Your task to perform on an android device: Clear the shopping cart on newegg. Add alienware area 51 to the cart on newegg Image 0: 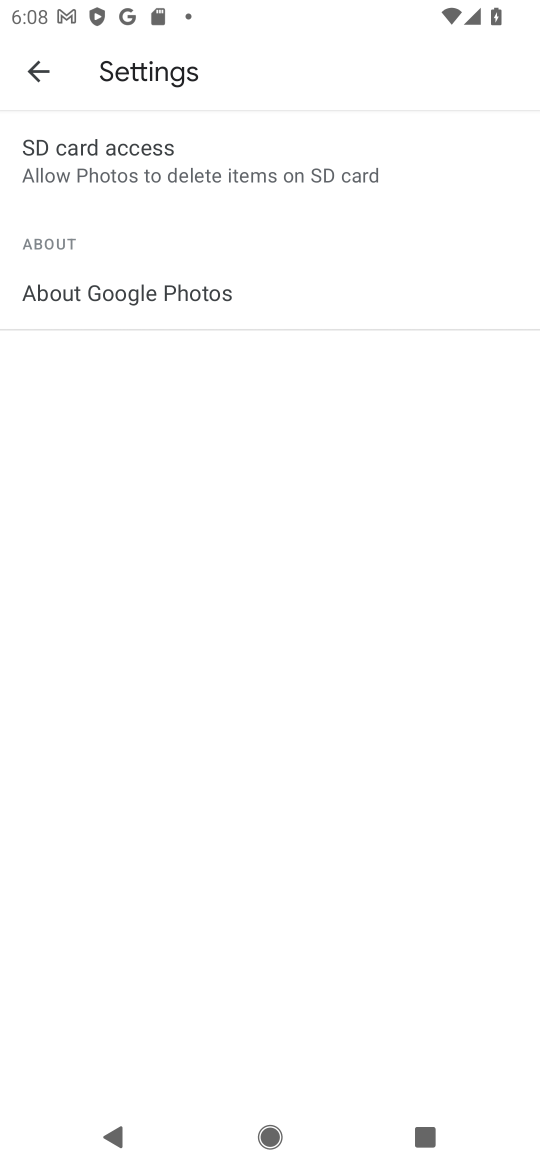
Step 0: press home button
Your task to perform on an android device: Clear the shopping cart on newegg. Add alienware area 51 to the cart on newegg Image 1: 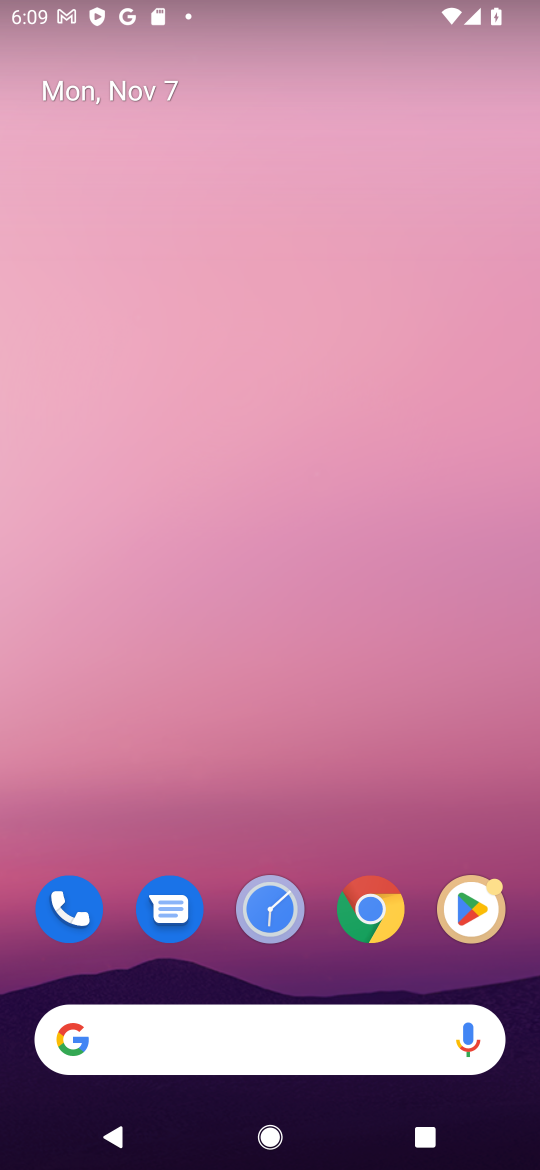
Step 1: click (366, 918)
Your task to perform on an android device: Clear the shopping cart on newegg. Add alienware area 51 to the cart on newegg Image 2: 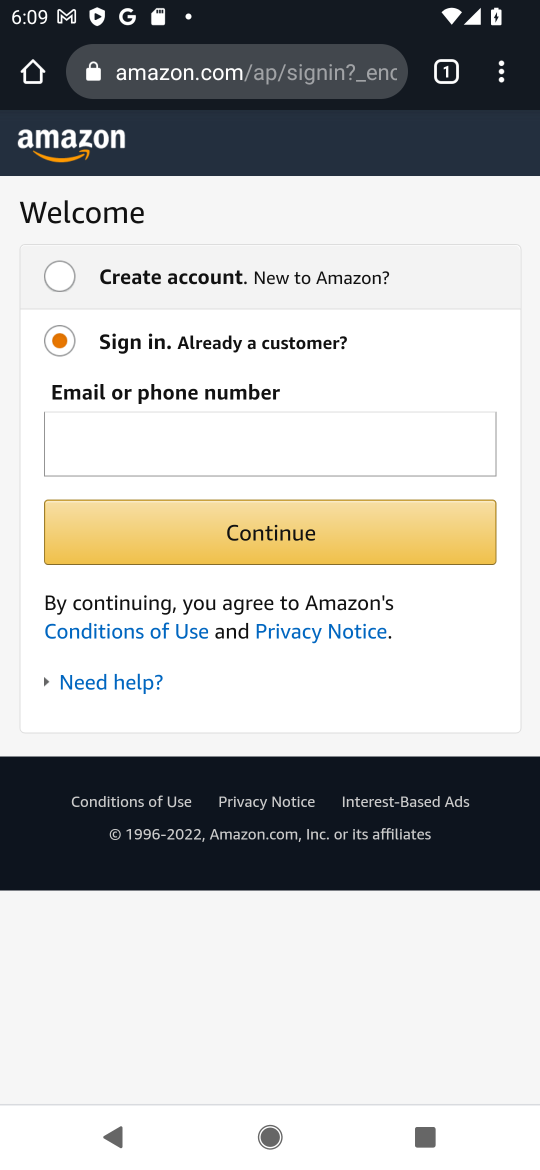
Step 2: click (459, 79)
Your task to perform on an android device: Clear the shopping cart on newegg. Add alienware area 51 to the cart on newegg Image 3: 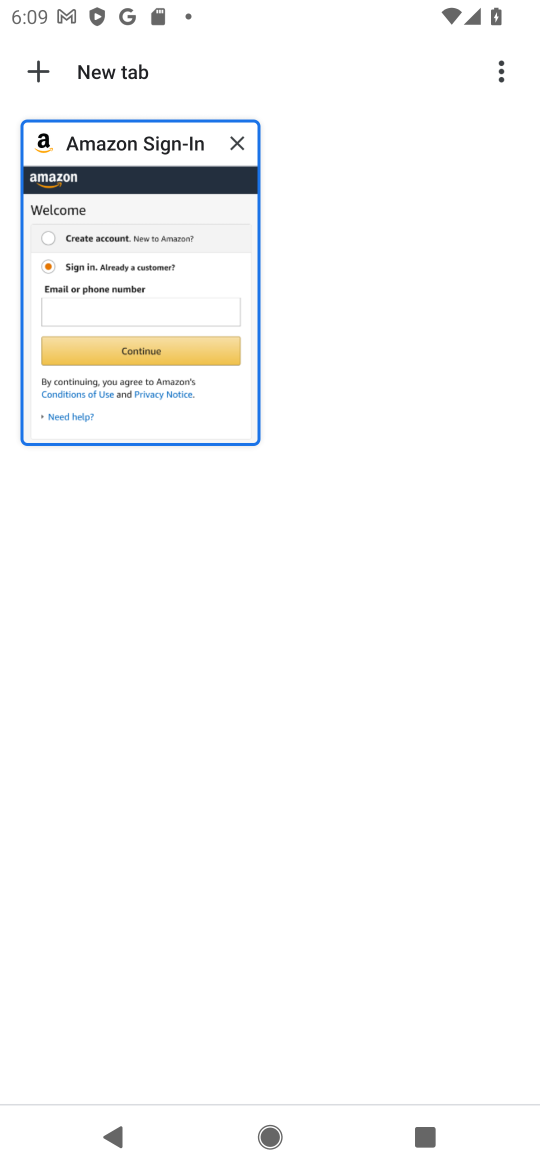
Step 3: click (40, 68)
Your task to perform on an android device: Clear the shopping cart on newegg. Add alienware area 51 to the cart on newegg Image 4: 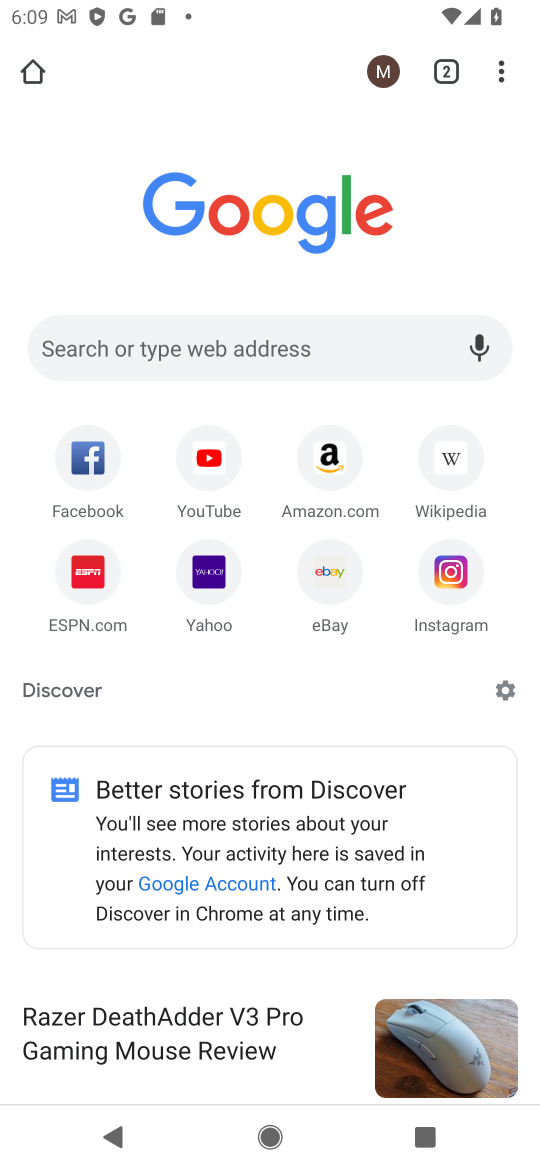
Step 4: click (133, 346)
Your task to perform on an android device: Clear the shopping cart on newegg. Add alienware area 51 to the cart on newegg Image 5: 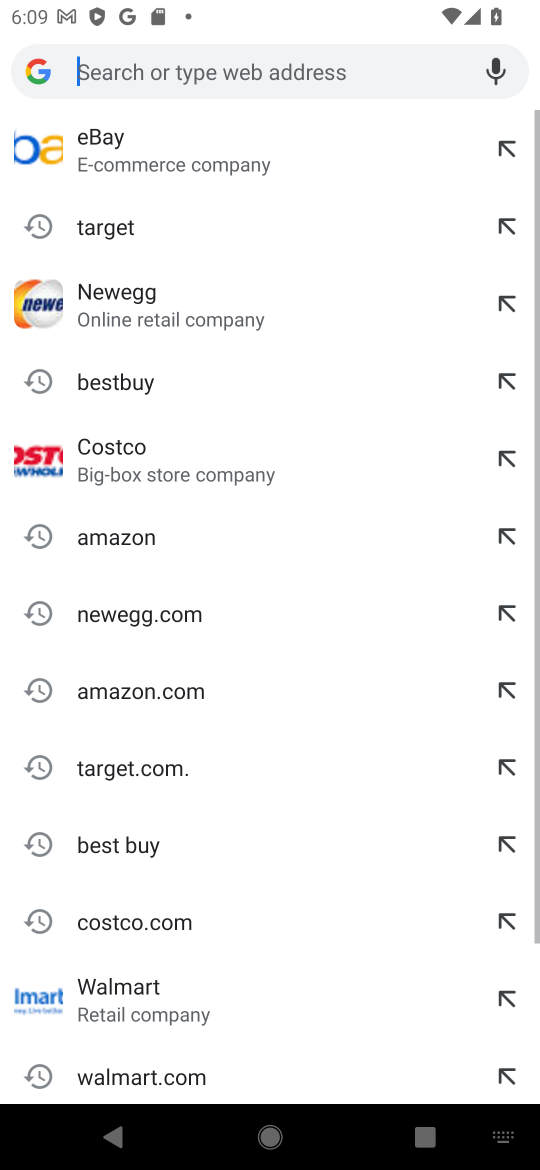
Step 5: type "newegg"
Your task to perform on an android device: Clear the shopping cart on newegg. Add alienware area 51 to the cart on newegg Image 6: 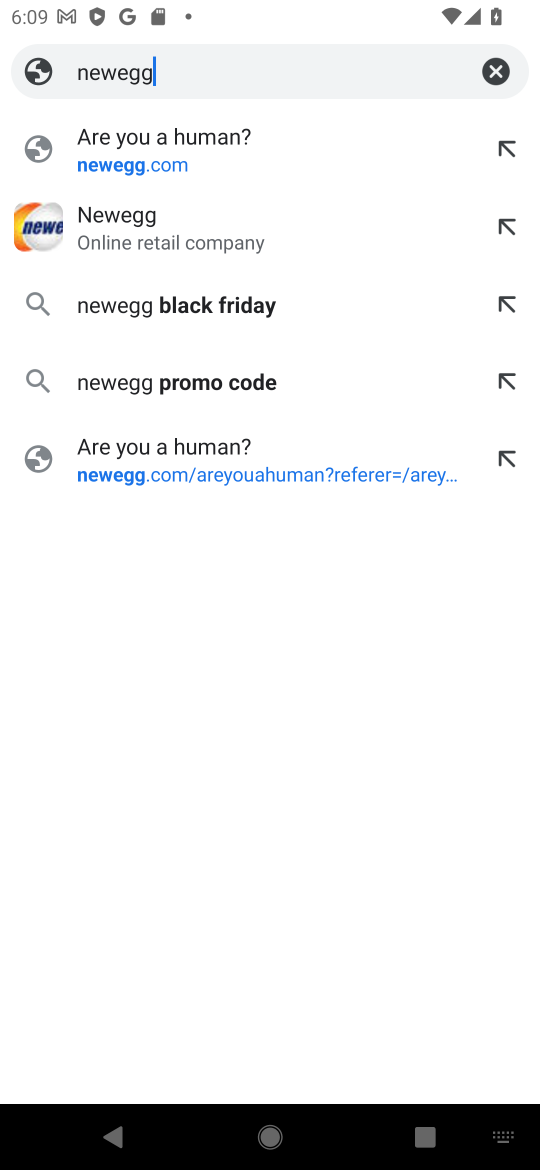
Step 6: click (134, 243)
Your task to perform on an android device: Clear the shopping cart on newegg. Add alienware area 51 to the cart on newegg Image 7: 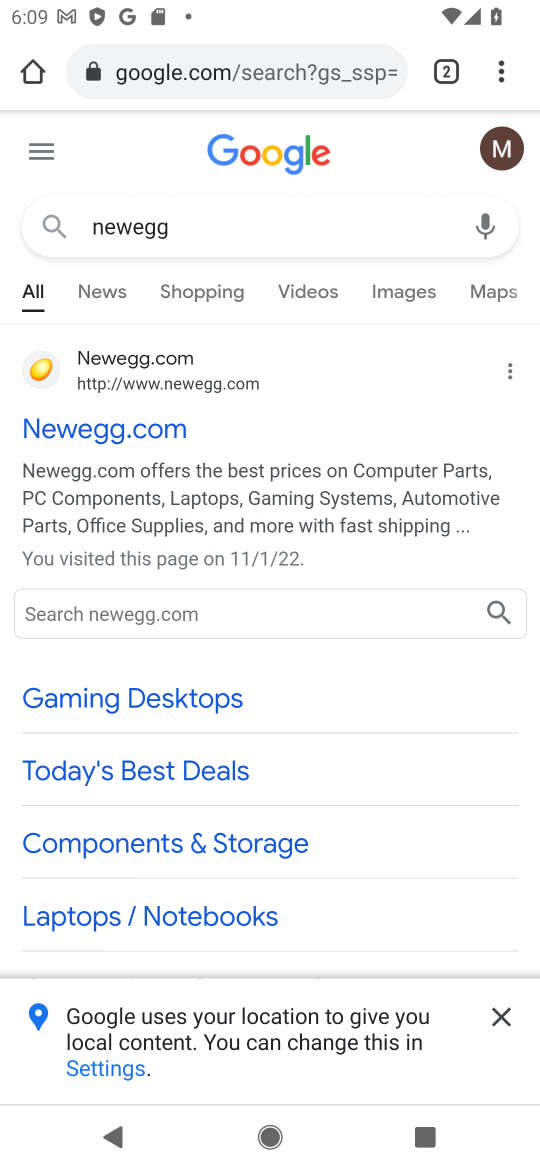
Step 7: drag from (360, 829) to (530, 1028)
Your task to perform on an android device: Clear the shopping cart on newegg. Add alienware area 51 to the cart on newegg Image 8: 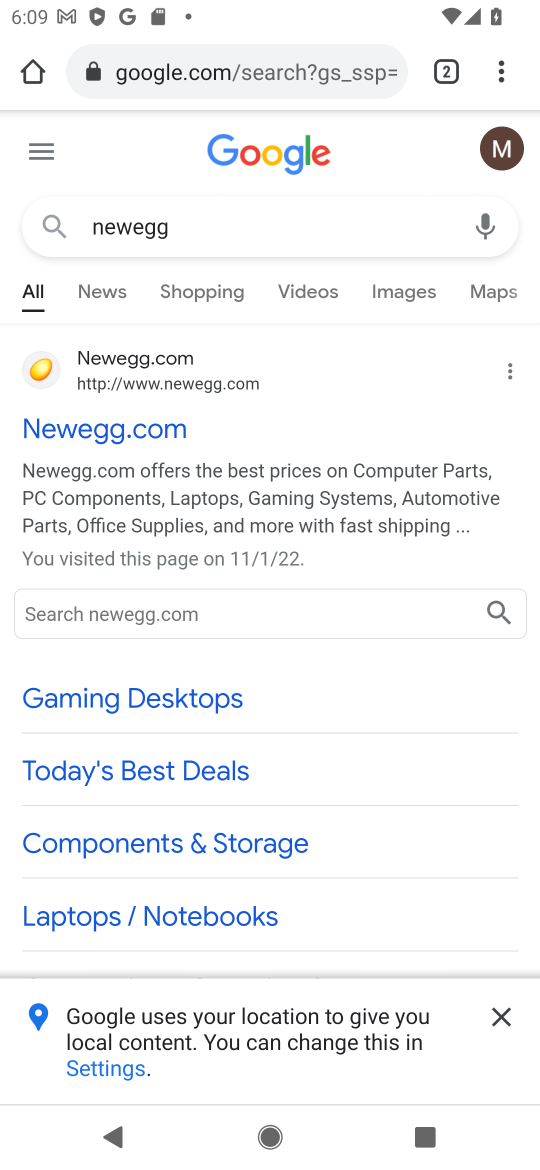
Step 8: click (503, 1017)
Your task to perform on an android device: Clear the shopping cart on newegg. Add alienware area 51 to the cart on newegg Image 9: 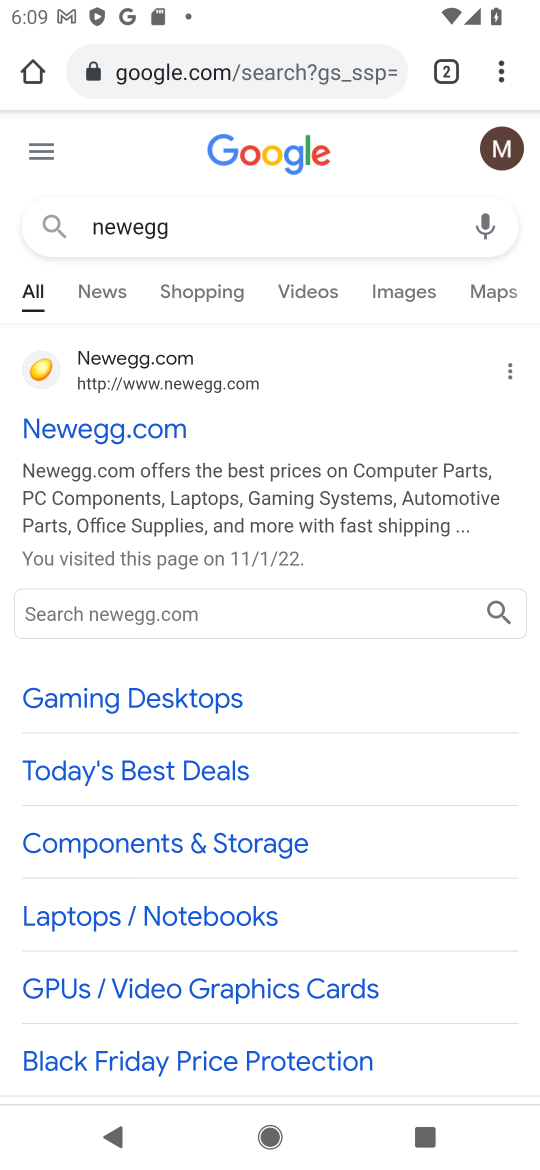
Step 9: drag from (404, 404) to (472, 19)
Your task to perform on an android device: Clear the shopping cart on newegg. Add alienware area 51 to the cart on newegg Image 10: 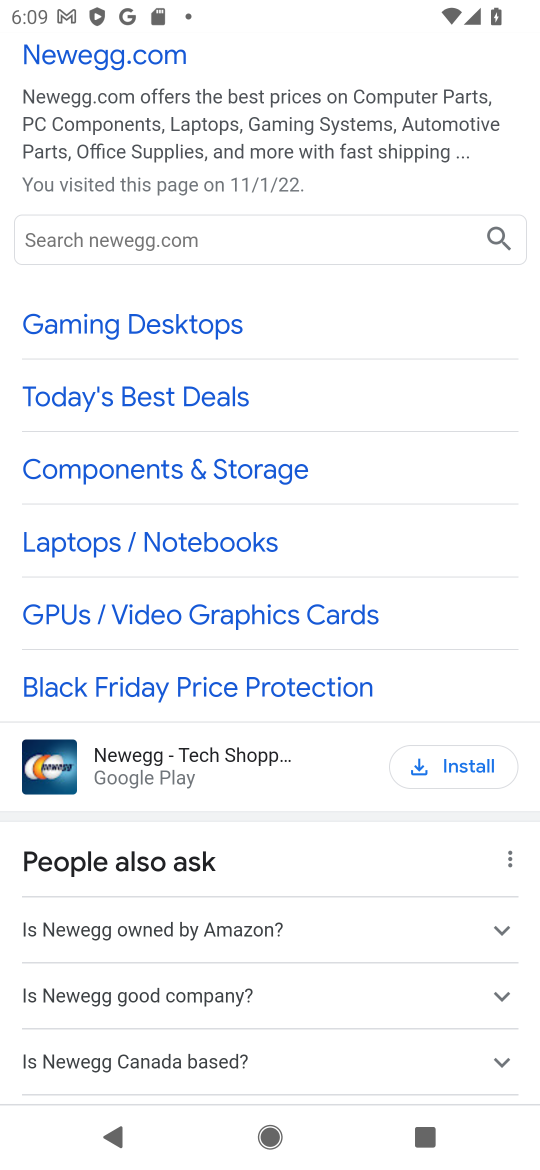
Step 10: click (150, 235)
Your task to perform on an android device: Clear the shopping cart on newegg. Add alienware area 51 to the cart on newegg Image 11: 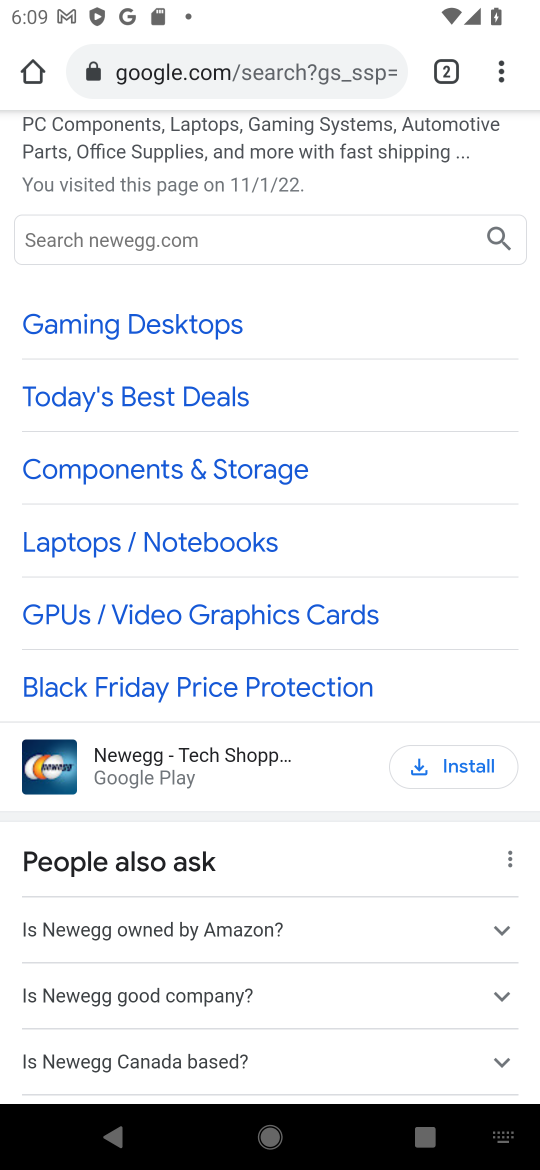
Step 11: type "alienware area 51 "
Your task to perform on an android device: Clear the shopping cart on newegg. Add alienware area 51 to the cart on newegg Image 12: 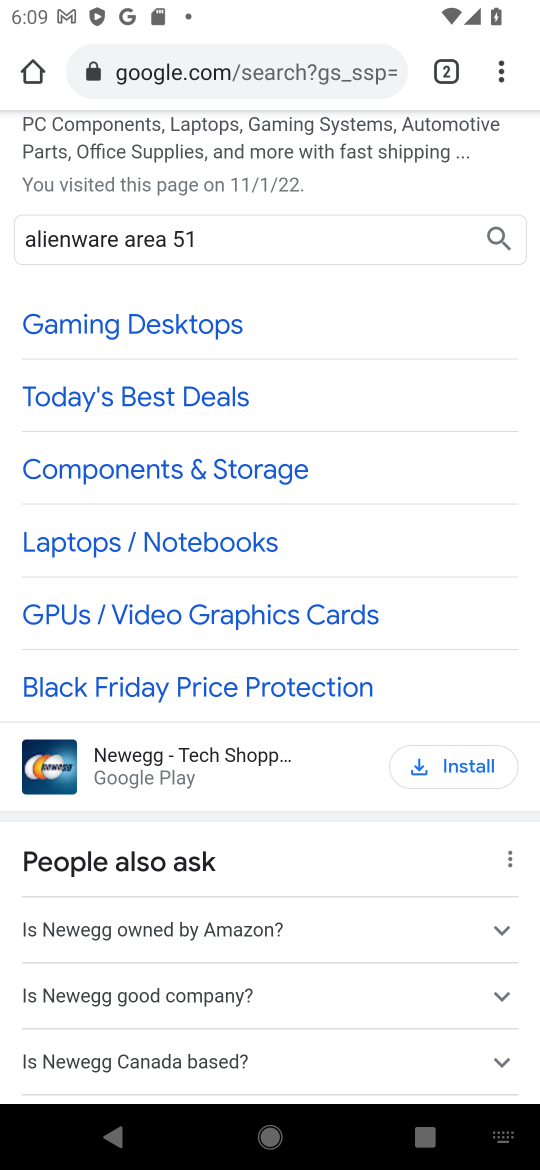
Step 12: click (504, 237)
Your task to perform on an android device: Clear the shopping cart on newegg. Add alienware area 51 to the cart on newegg Image 13: 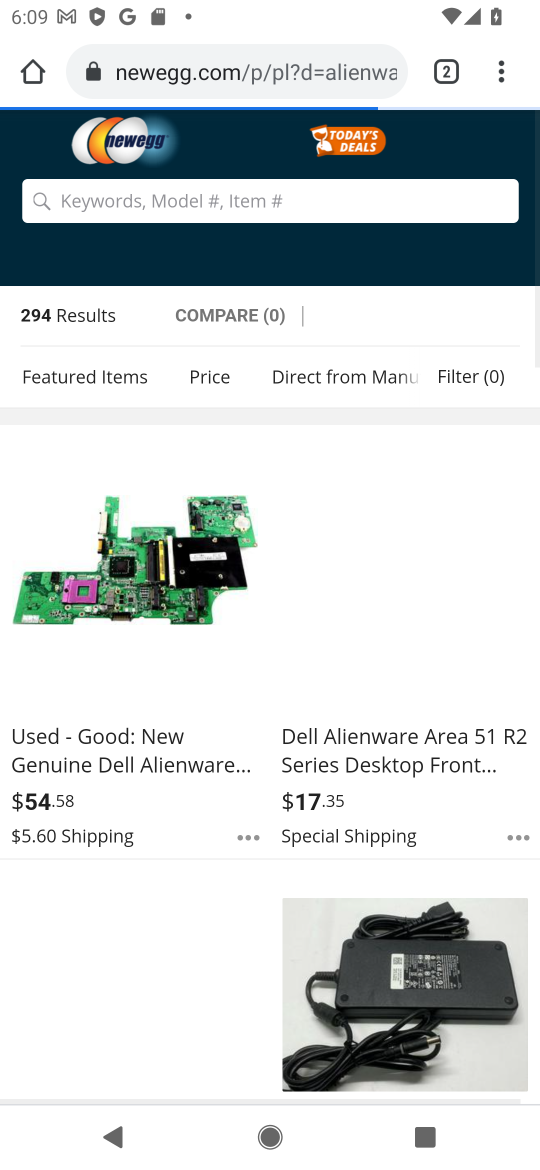
Step 13: click (499, 233)
Your task to perform on an android device: Clear the shopping cart on newegg. Add alienware area 51 to the cart on newegg Image 14: 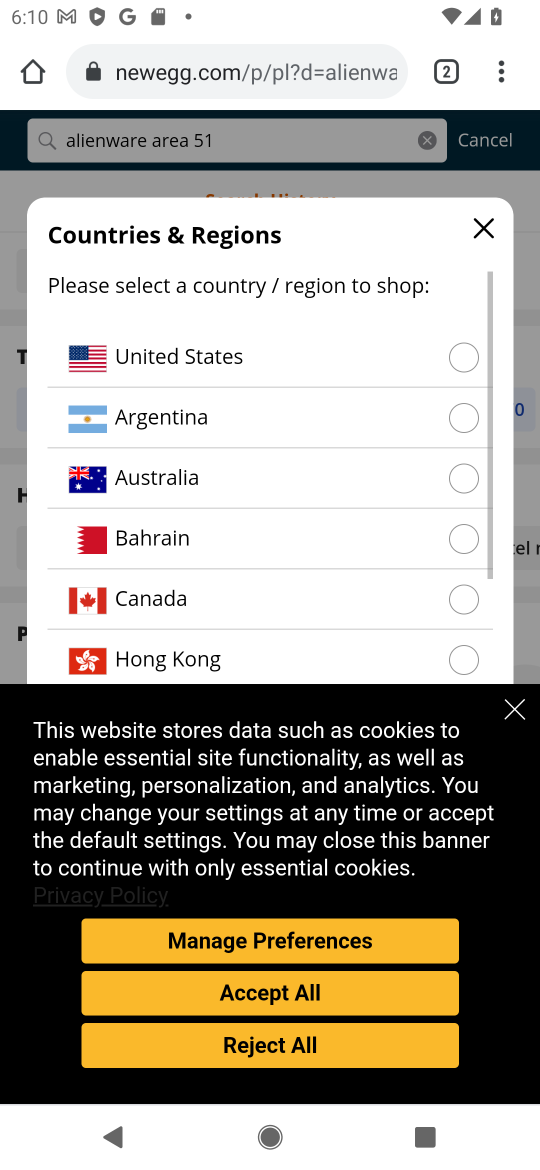
Step 14: click (516, 709)
Your task to perform on an android device: Clear the shopping cart on newegg. Add alienware area 51 to the cart on newegg Image 15: 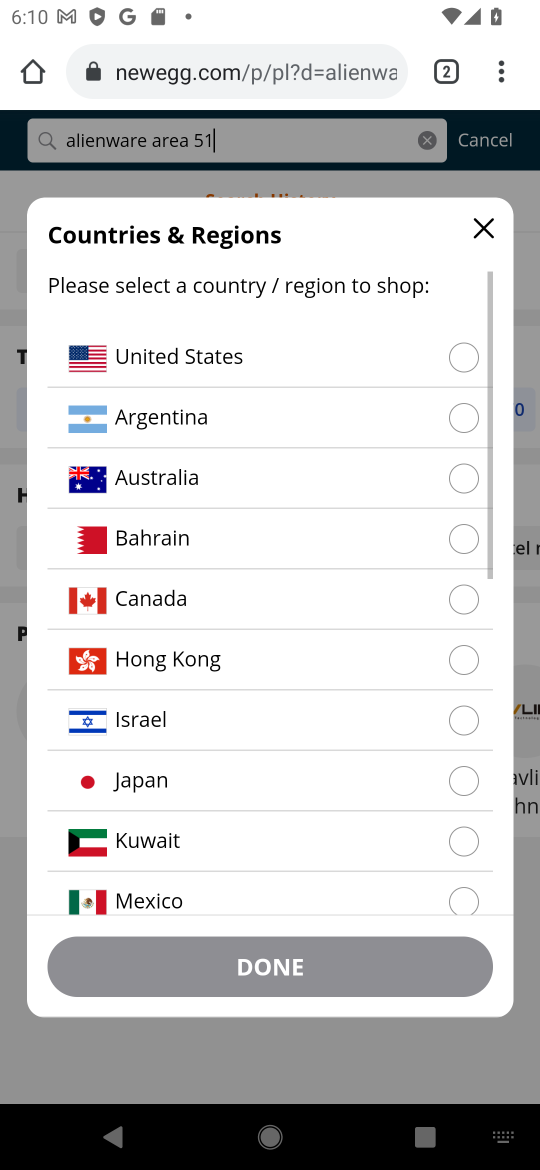
Step 15: click (344, 1163)
Your task to perform on an android device: Clear the shopping cart on newegg. Add alienware area 51 to the cart on newegg Image 16: 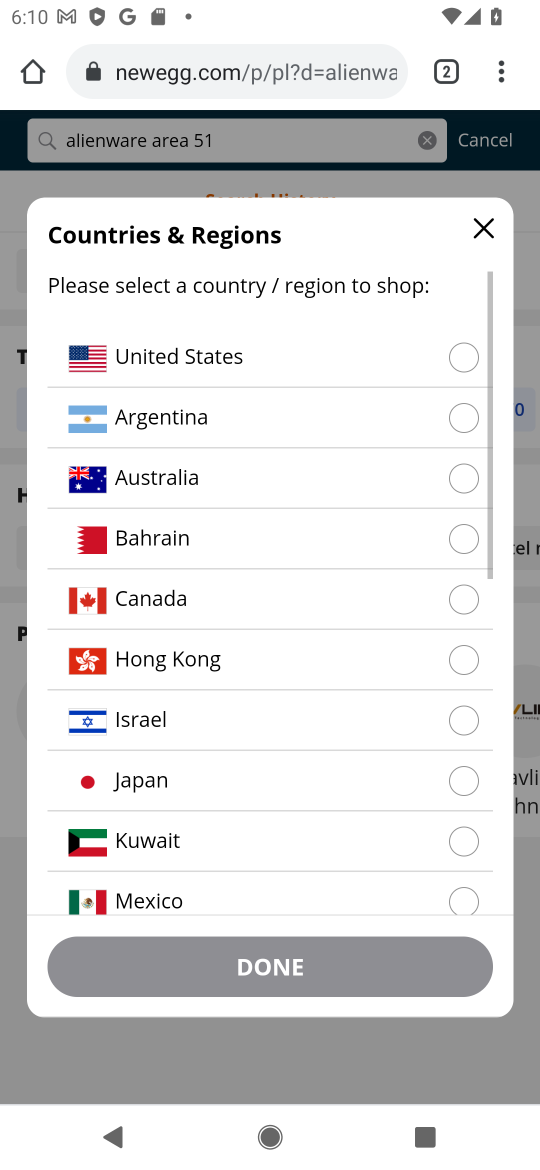
Step 16: click (268, 1052)
Your task to perform on an android device: Clear the shopping cart on newegg. Add alienware area 51 to the cart on newegg Image 17: 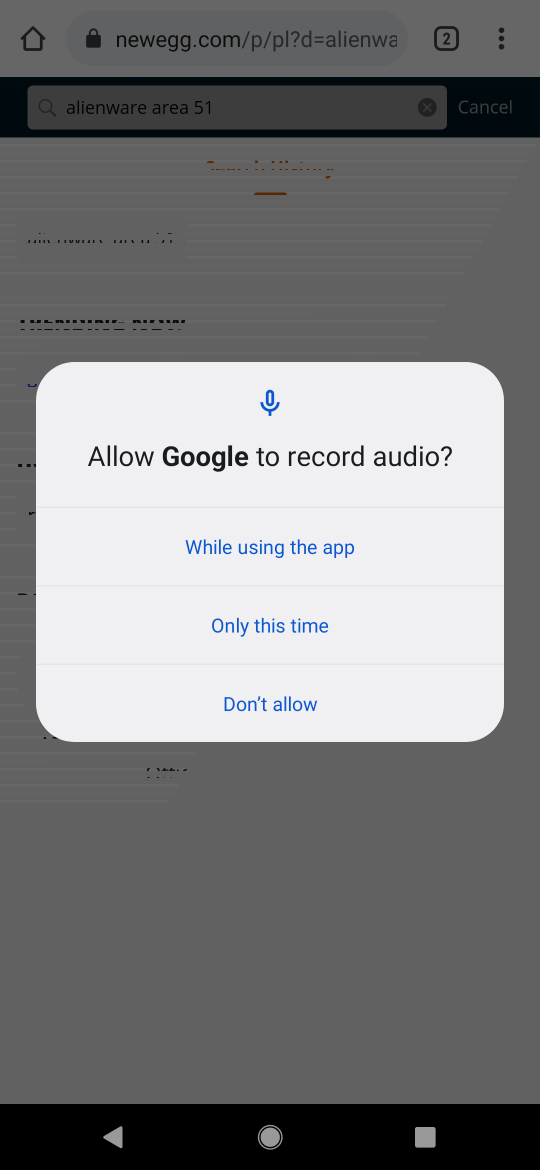
Step 17: click (466, 355)
Your task to perform on an android device: Clear the shopping cart on newegg. Add alienware area 51 to the cart on newegg Image 18: 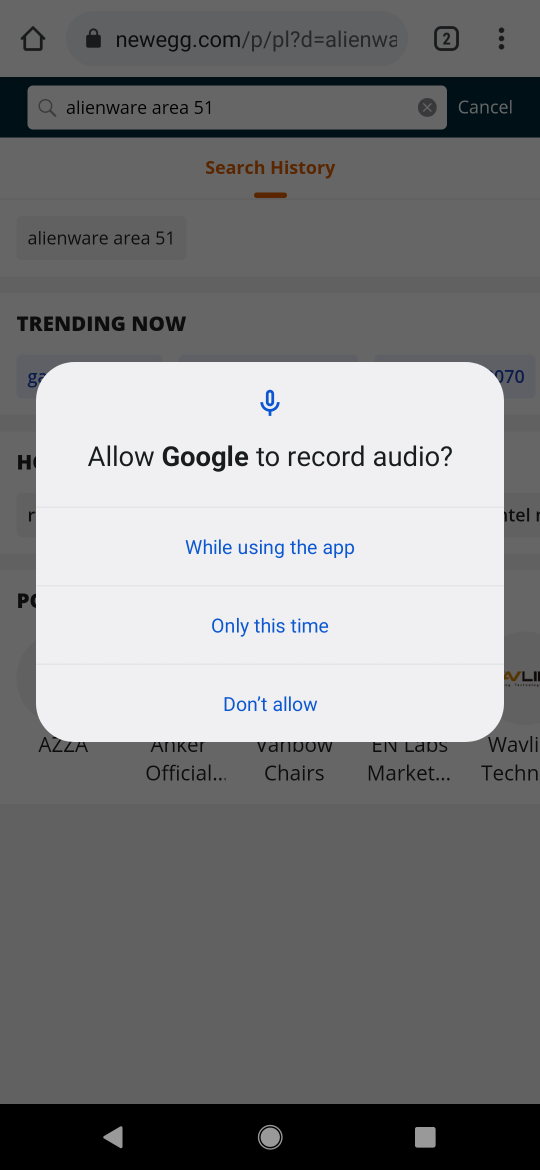
Step 18: click (290, 704)
Your task to perform on an android device: Clear the shopping cart on newegg. Add alienware area 51 to the cart on newegg Image 19: 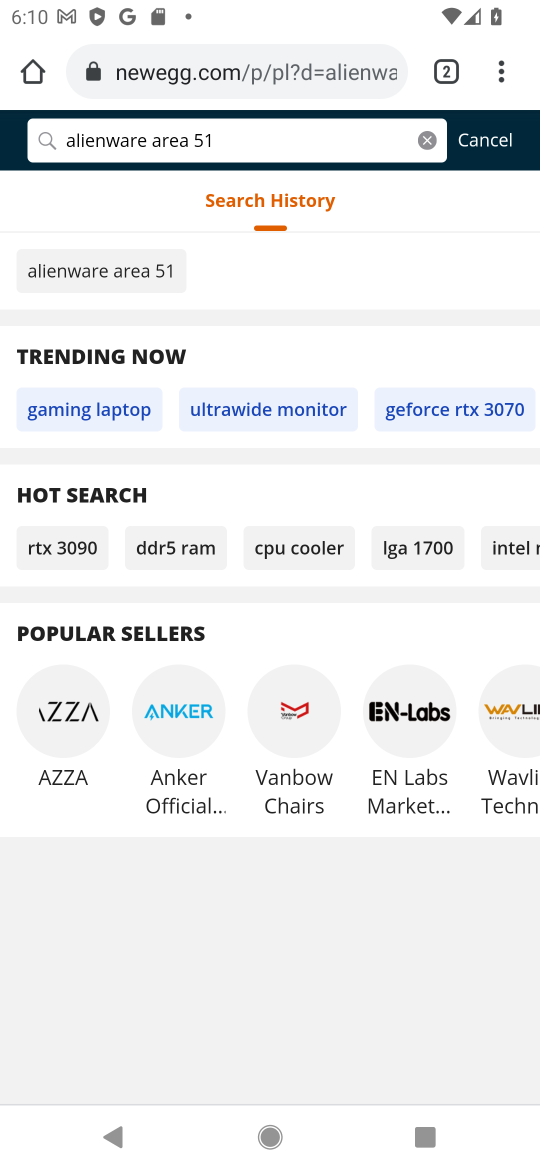
Step 19: click (154, 271)
Your task to perform on an android device: Clear the shopping cart on newegg. Add alienware area 51 to the cart on newegg Image 20: 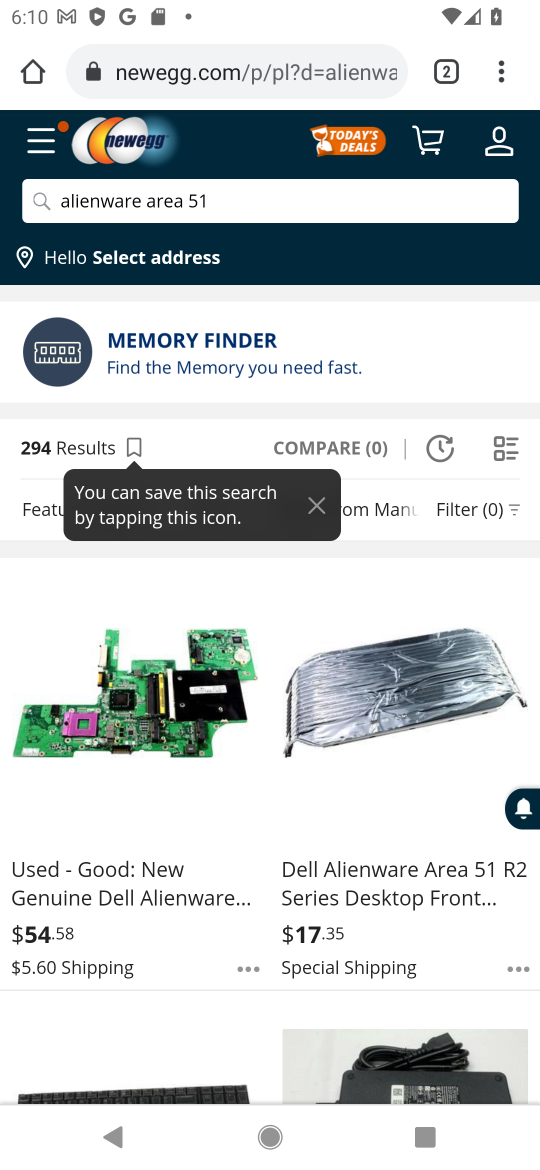
Step 20: click (322, 889)
Your task to perform on an android device: Clear the shopping cart on newegg. Add alienware area 51 to the cart on newegg Image 21: 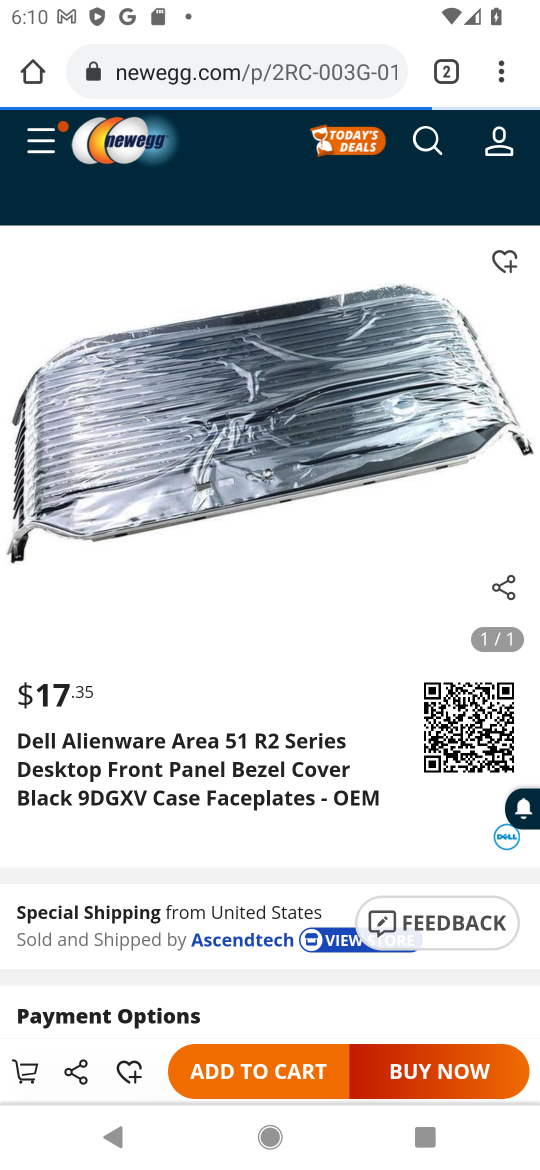
Step 21: click (258, 1055)
Your task to perform on an android device: Clear the shopping cart on newegg. Add alienware area 51 to the cart on newegg Image 22: 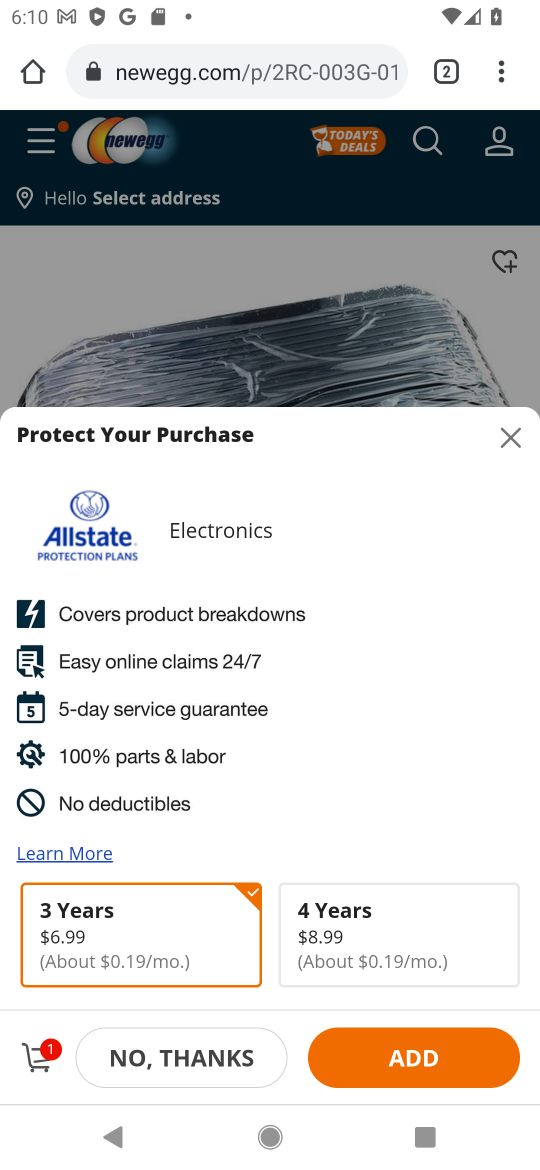
Step 22: task complete